Your task to perform on an android device: check storage Image 0: 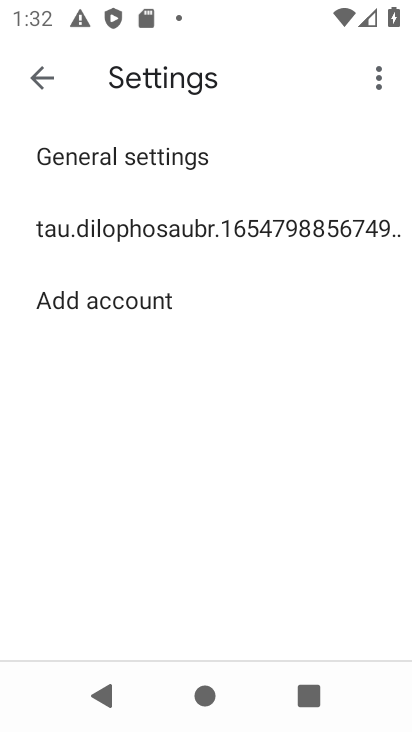
Step 0: press home button
Your task to perform on an android device: check storage Image 1: 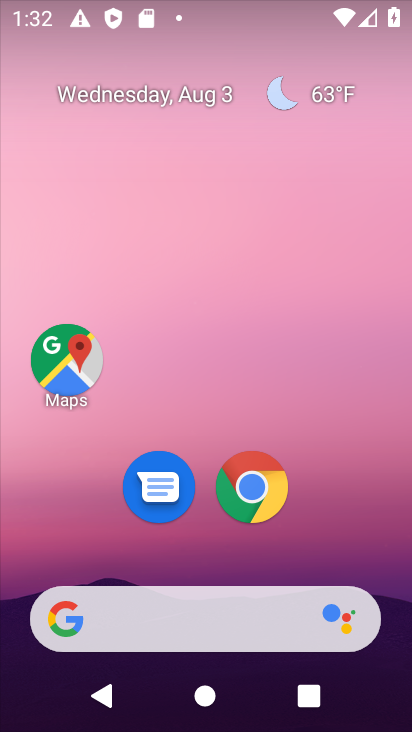
Step 1: drag from (345, 546) to (368, 121)
Your task to perform on an android device: check storage Image 2: 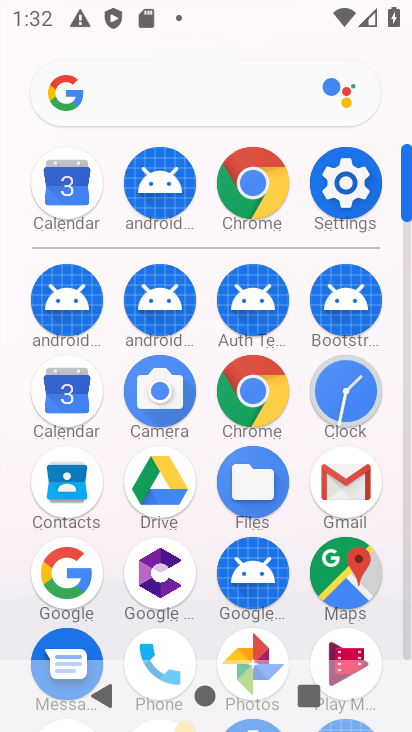
Step 2: click (340, 185)
Your task to perform on an android device: check storage Image 3: 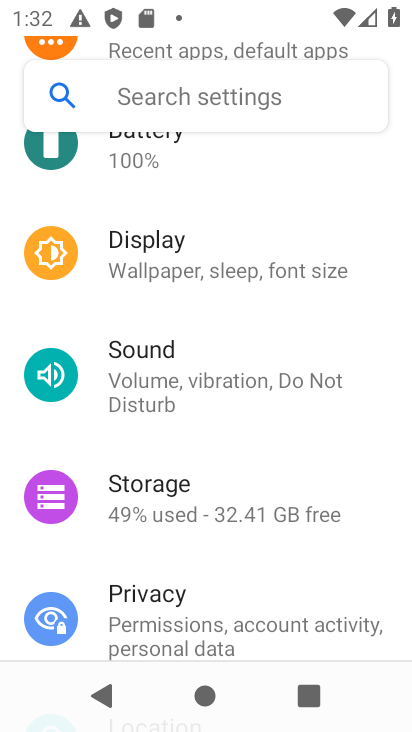
Step 3: click (128, 493)
Your task to perform on an android device: check storage Image 4: 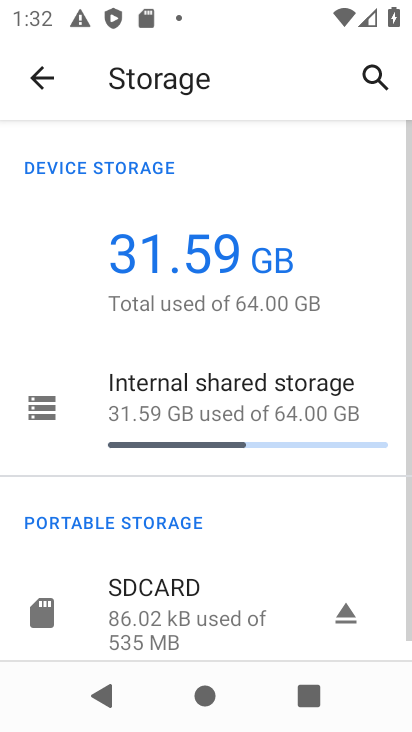
Step 4: task complete